Your task to perform on an android device: open a bookmark in the chrome app Image 0: 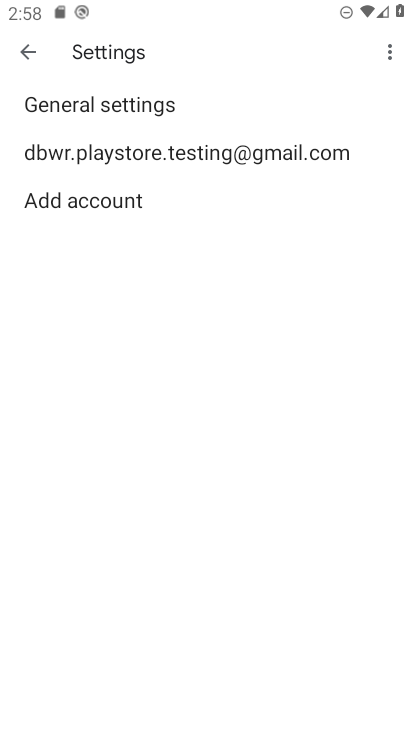
Step 0: press home button
Your task to perform on an android device: open a bookmark in the chrome app Image 1: 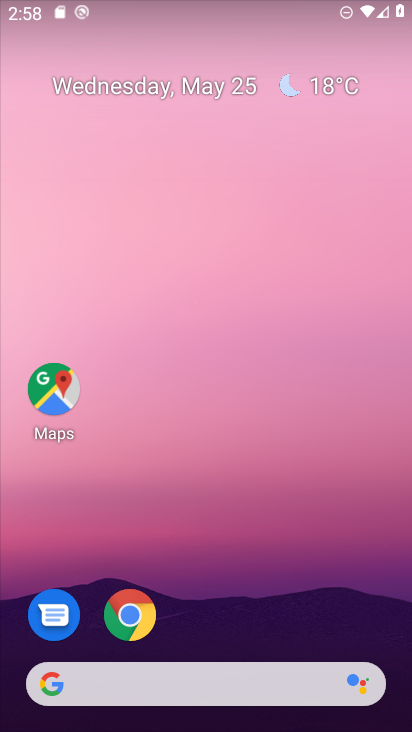
Step 1: click (131, 617)
Your task to perform on an android device: open a bookmark in the chrome app Image 2: 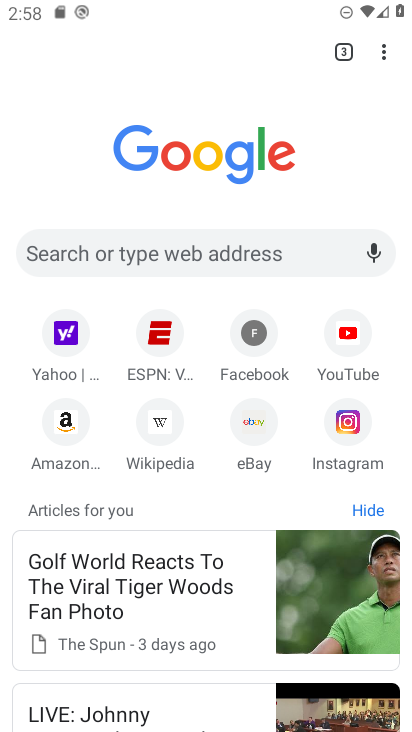
Step 2: click (382, 49)
Your task to perform on an android device: open a bookmark in the chrome app Image 3: 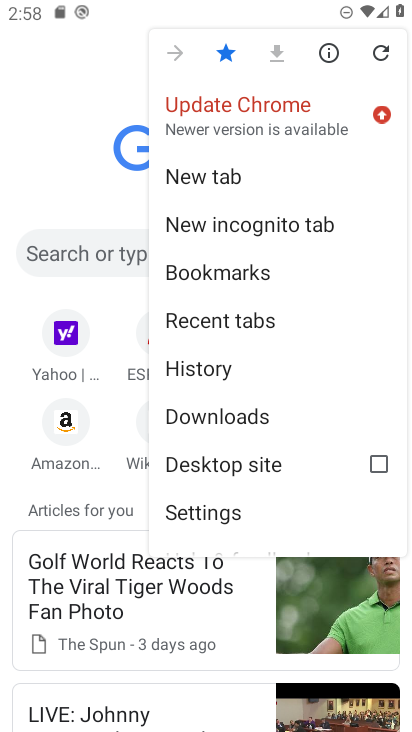
Step 3: click (237, 266)
Your task to perform on an android device: open a bookmark in the chrome app Image 4: 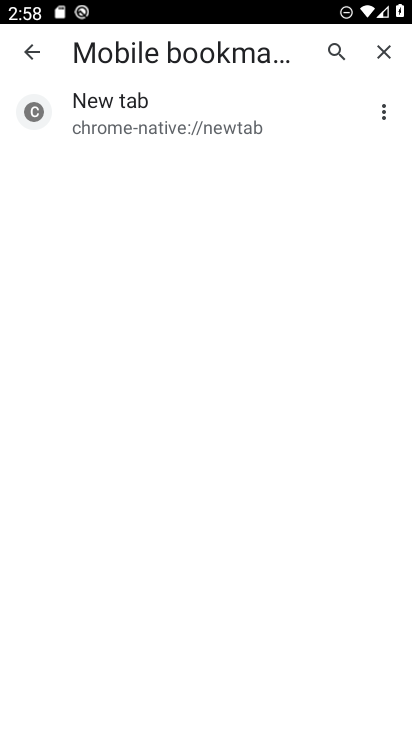
Step 4: click (187, 112)
Your task to perform on an android device: open a bookmark in the chrome app Image 5: 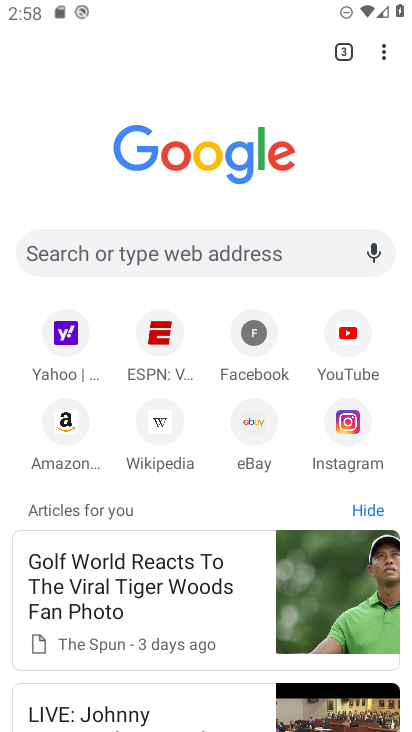
Step 5: task complete